Your task to perform on an android device: turn on showing notifications on the lock screen Image 0: 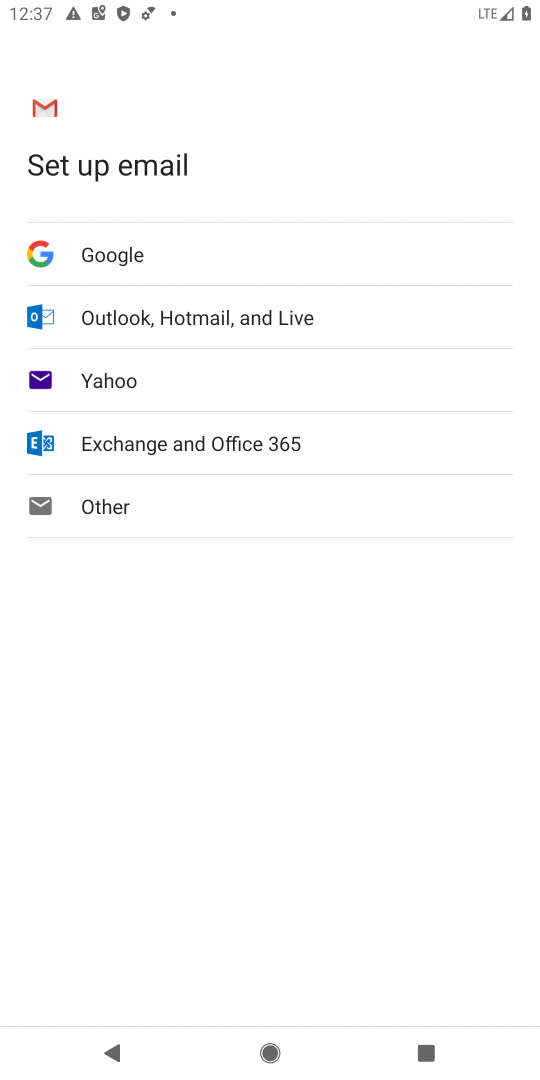
Step 0: press back button
Your task to perform on an android device: turn on showing notifications on the lock screen Image 1: 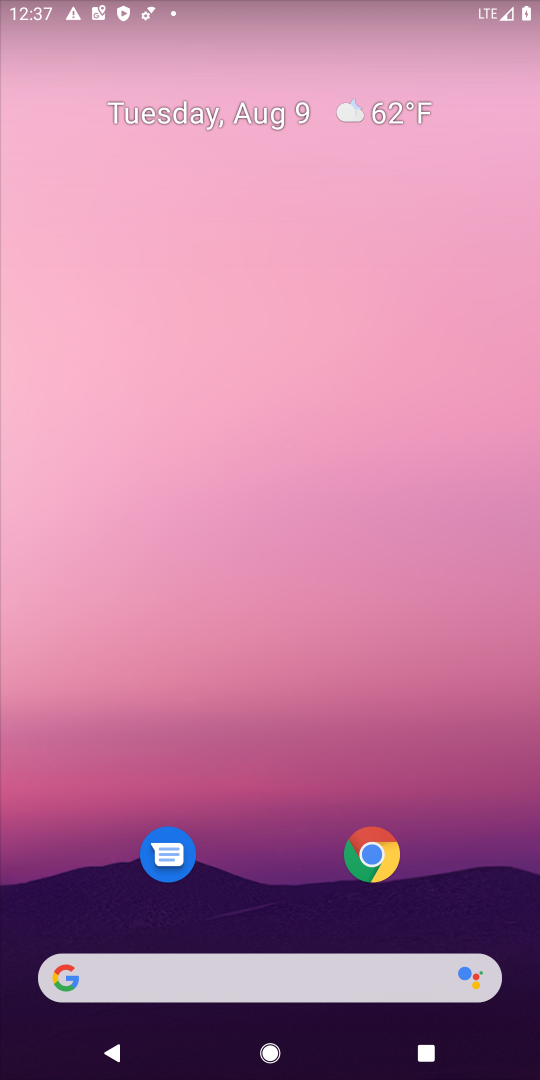
Step 1: drag from (259, 909) to (294, 146)
Your task to perform on an android device: turn on showing notifications on the lock screen Image 2: 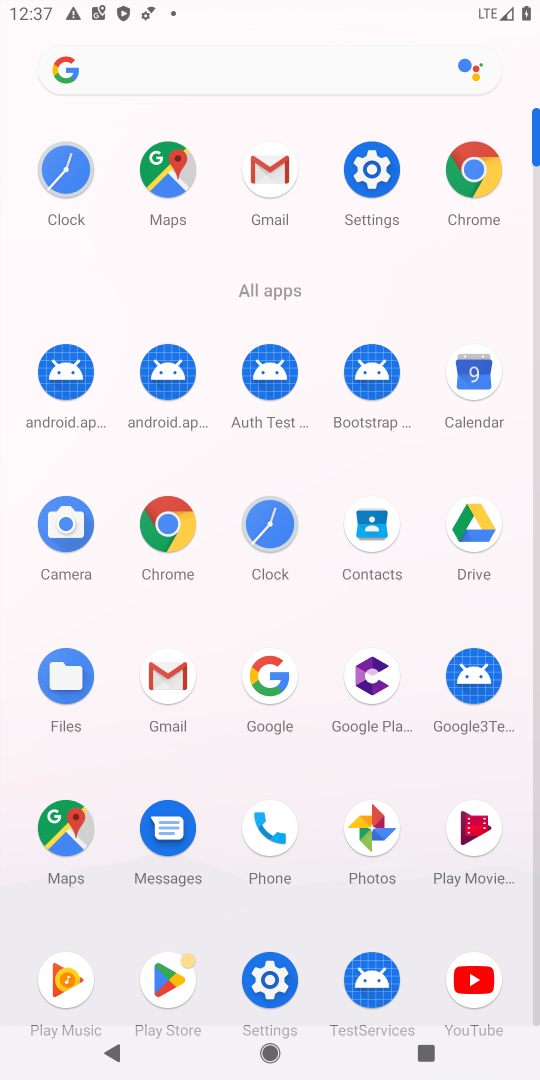
Step 2: click (378, 169)
Your task to perform on an android device: turn on showing notifications on the lock screen Image 3: 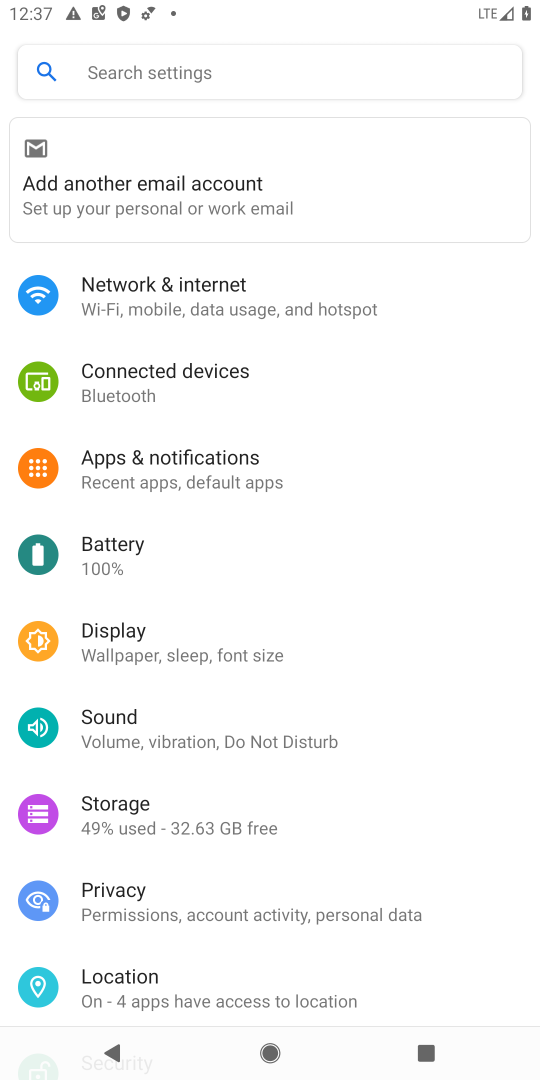
Step 3: click (180, 451)
Your task to perform on an android device: turn on showing notifications on the lock screen Image 4: 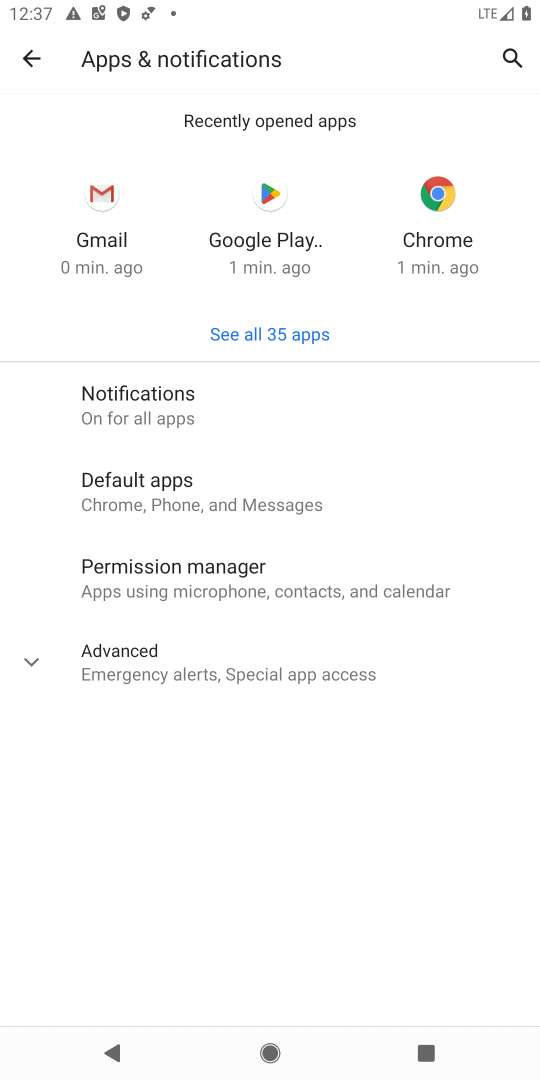
Step 4: click (185, 404)
Your task to perform on an android device: turn on showing notifications on the lock screen Image 5: 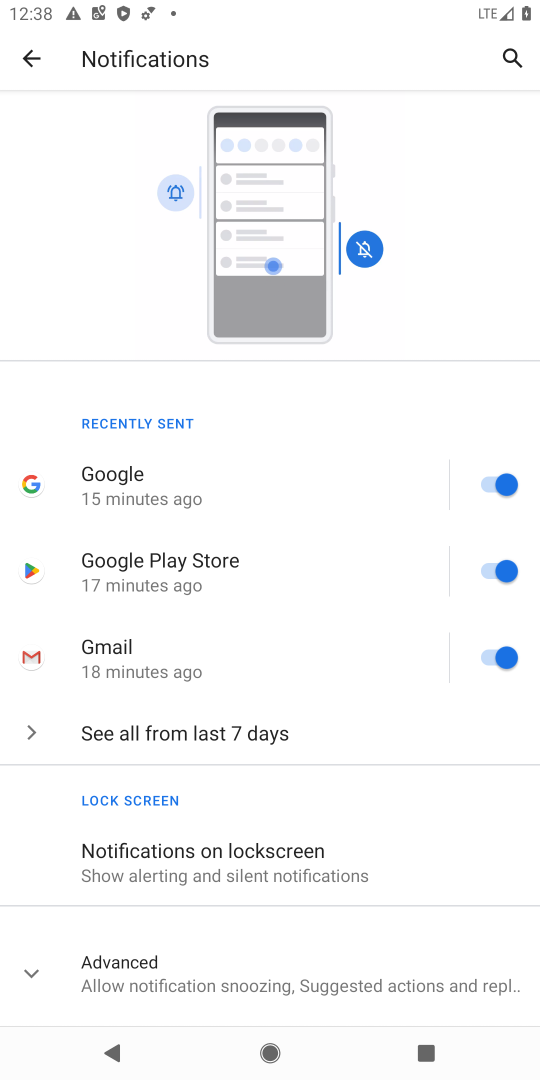
Step 5: click (159, 847)
Your task to perform on an android device: turn on showing notifications on the lock screen Image 6: 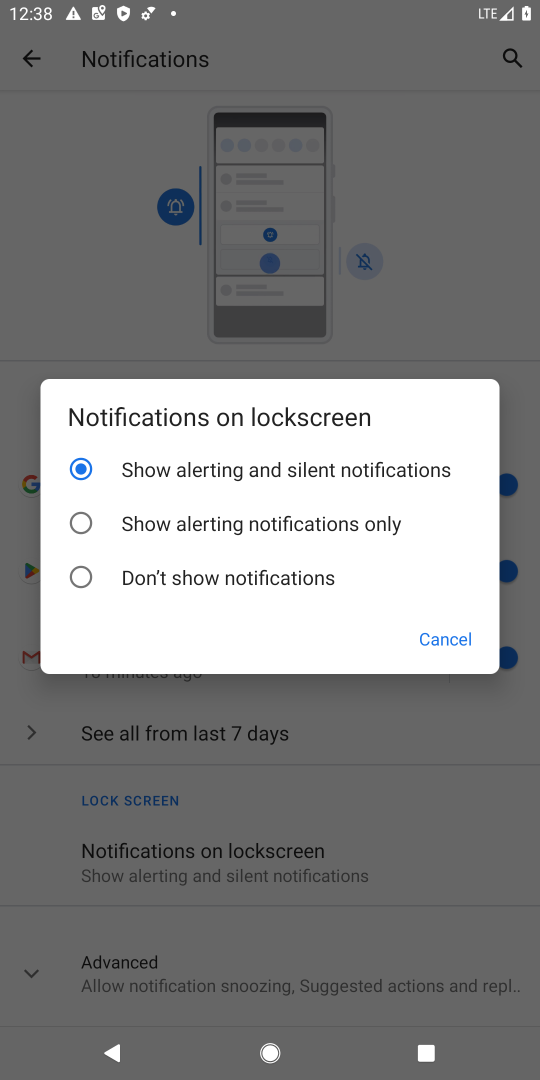
Step 6: click (148, 475)
Your task to perform on an android device: turn on showing notifications on the lock screen Image 7: 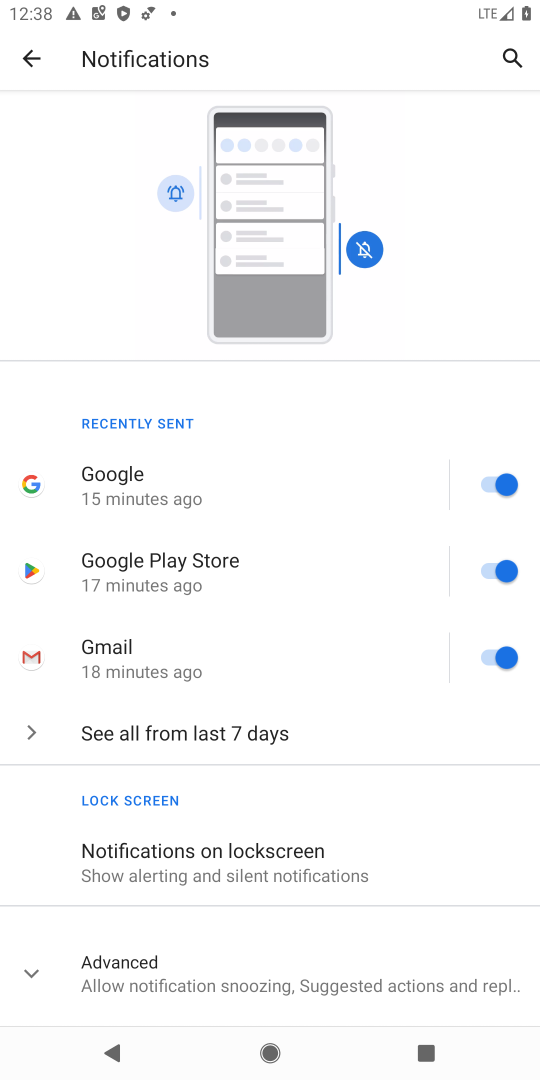
Step 7: task complete